Your task to perform on an android device: change notification settings in the gmail app Image 0: 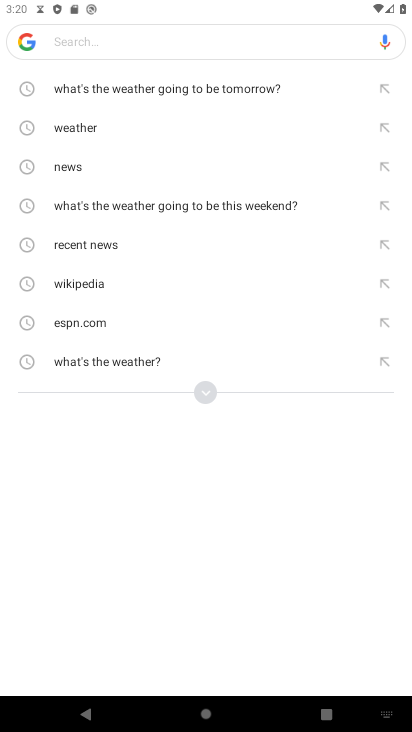
Step 0: press home button
Your task to perform on an android device: change notification settings in the gmail app Image 1: 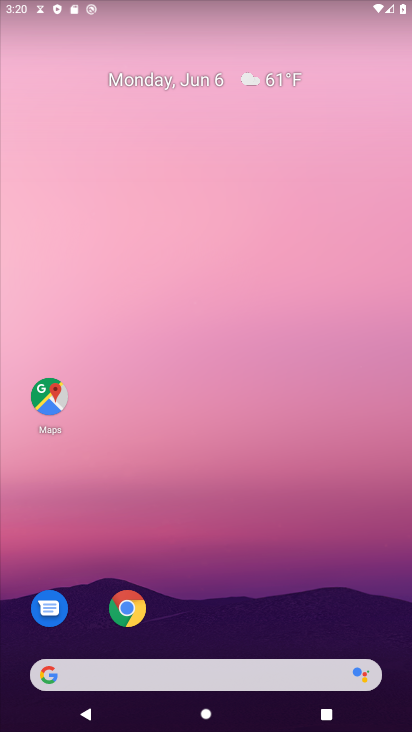
Step 1: drag from (254, 601) to (326, 28)
Your task to perform on an android device: change notification settings in the gmail app Image 2: 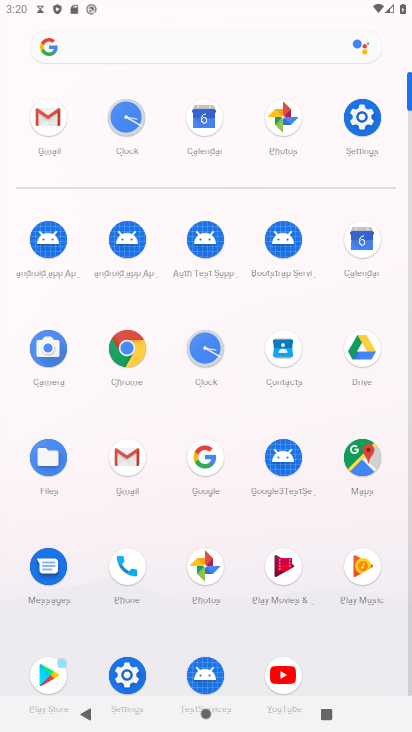
Step 2: click (125, 450)
Your task to perform on an android device: change notification settings in the gmail app Image 3: 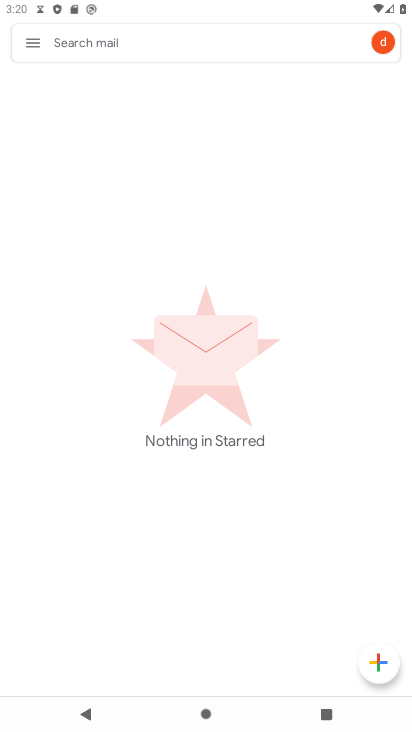
Step 3: click (22, 43)
Your task to perform on an android device: change notification settings in the gmail app Image 4: 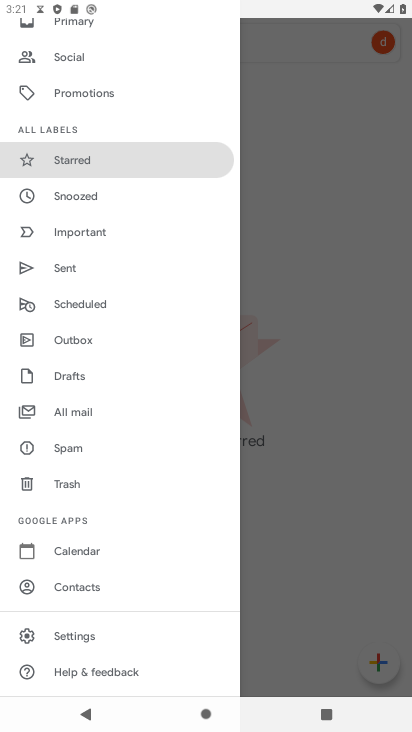
Step 4: click (110, 633)
Your task to perform on an android device: change notification settings in the gmail app Image 5: 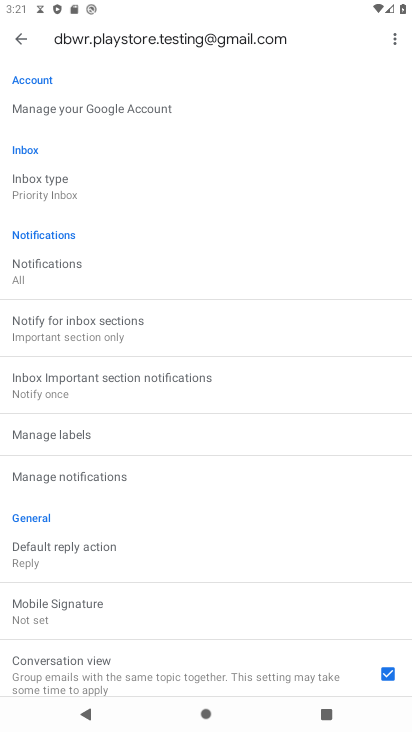
Step 5: click (20, 490)
Your task to perform on an android device: change notification settings in the gmail app Image 6: 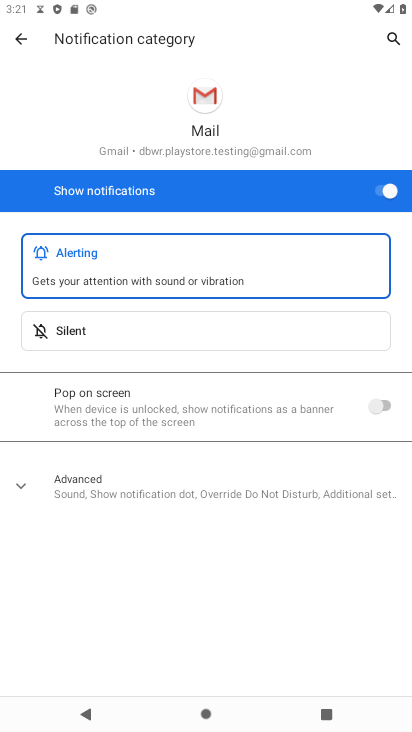
Step 6: click (371, 184)
Your task to perform on an android device: change notification settings in the gmail app Image 7: 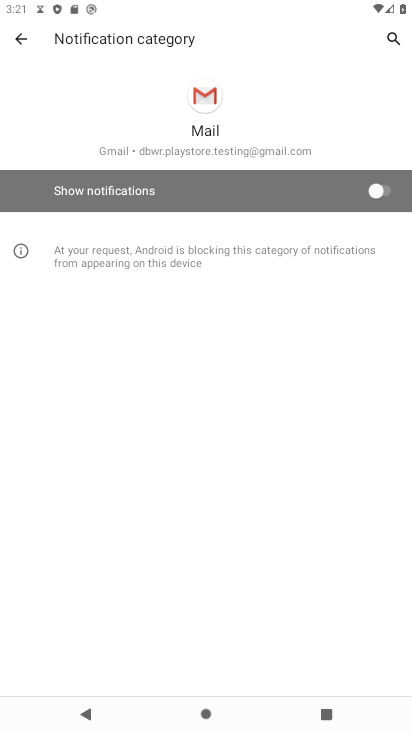
Step 7: task complete